Your task to perform on an android device: Go to ESPN.com Image 0: 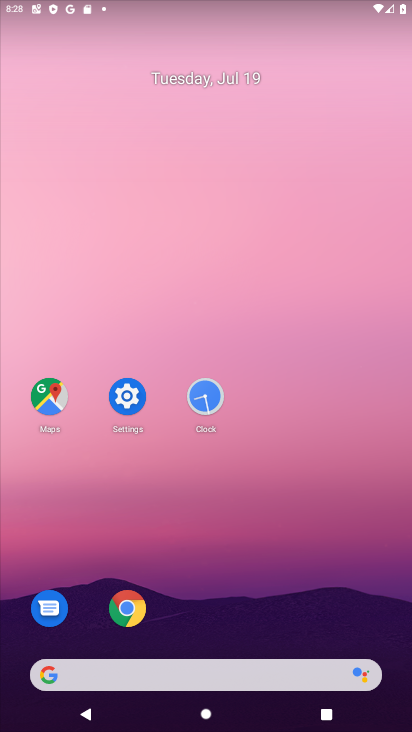
Step 0: drag from (120, 605) to (261, 398)
Your task to perform on an android device: Go to ESPN.com Image 1: 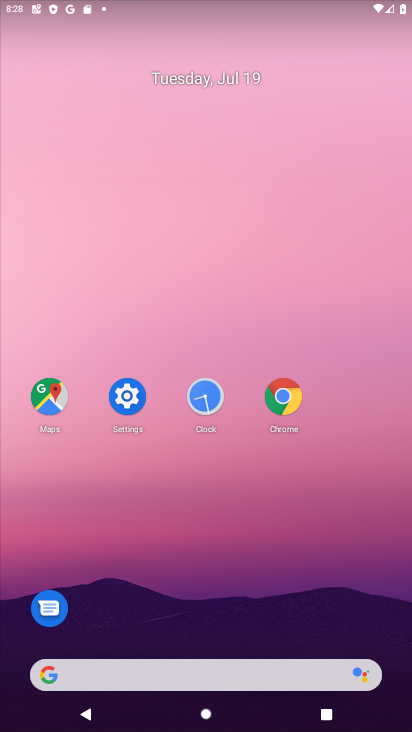
Step 1: click (282, 394)
Your task to perform on an android device: Go to ESPN.com Image 2: 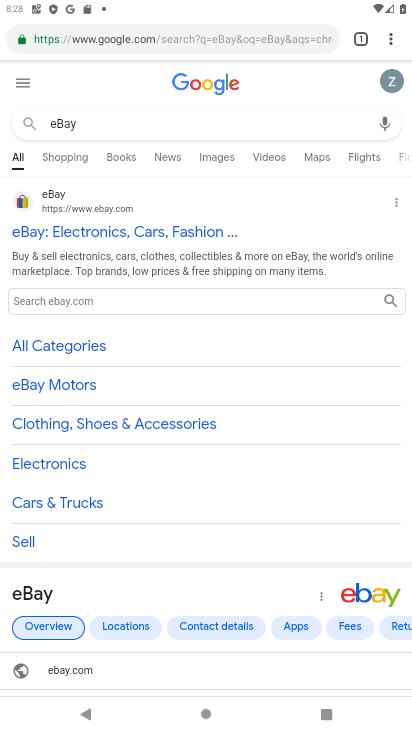
Step 2: click (314, 34)
Your task to perform on an android device: Go to ESPN.com Image 3: 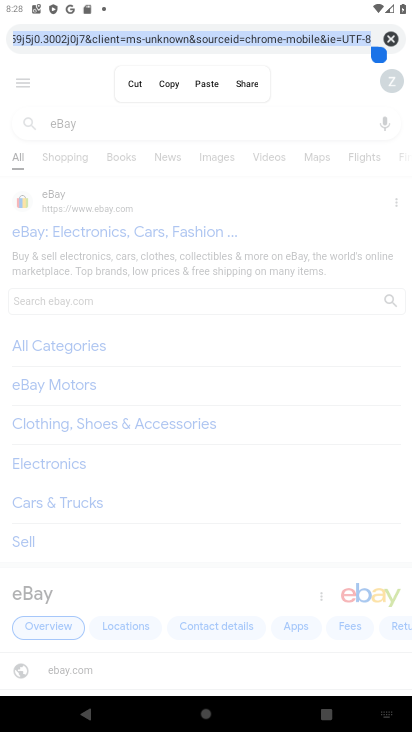
Step 3: click (390, 35)
Your task to perform on an android device: Go to ESPN.com Image 4: 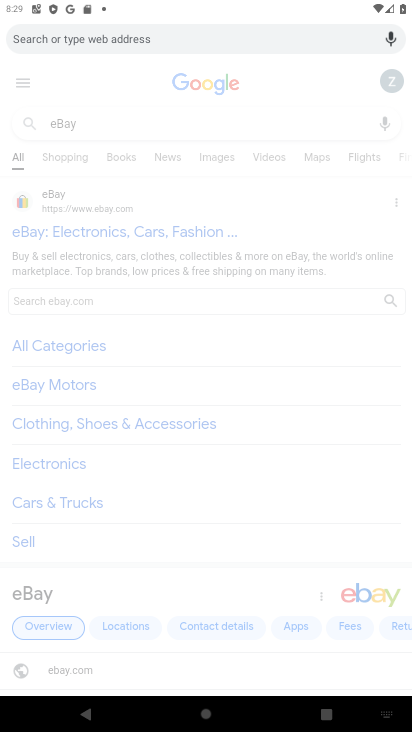
Step 4: type "ESPN.com"
Your task to perform on an android device: Go to ESPN.com Image 5: 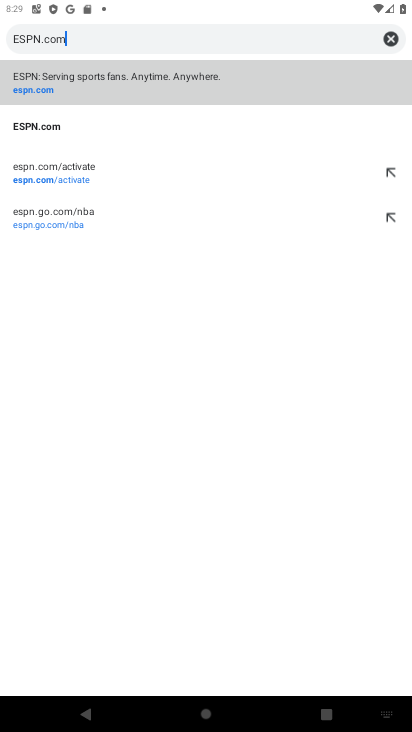
Step 5: click (39, 117)
Your task to perform on an android device: Go to ESPN.com Image 6: 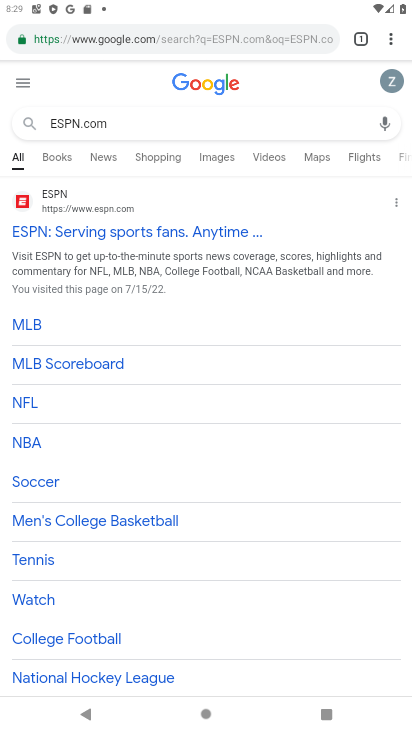
Step 6: task complete